Your task to perform on an android device: Add "energizer triple a" to the cart on amazon Image 0: 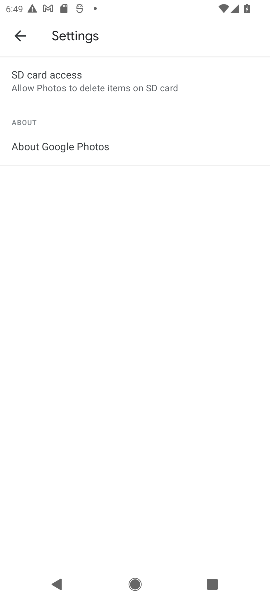
Step 0: press home button
Your task to perform on an android device: Add "energizer triple a" to the cart on amazon Image 1: 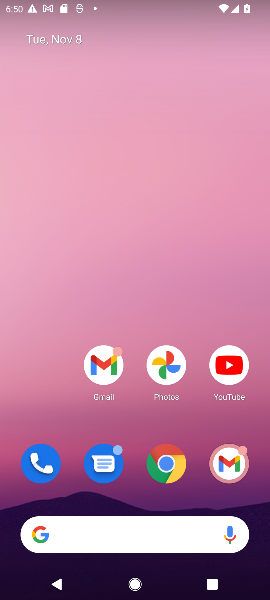
Step 1: click (167, 458)
Your task to perform on an android device: Add "energizer triple a" to the cart on amazon Image 2: 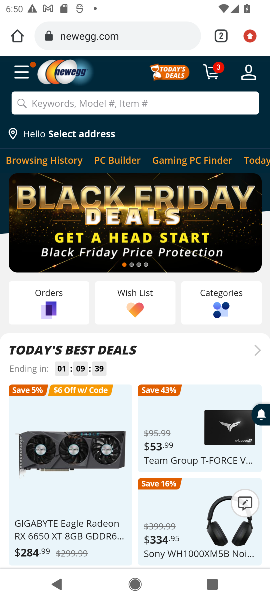
Step 2: click (85, 24)
Your task to perform on an android device: Add "energizer triple a" to the cart on amazon Image 3: 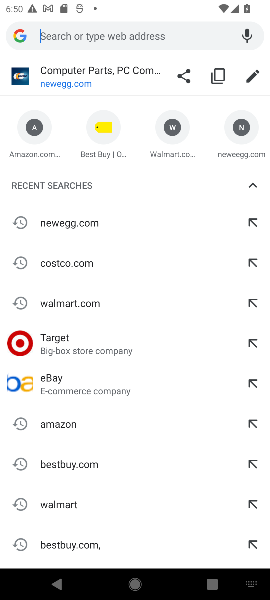
Step 3: click (25, 422)
Your task to perform on an android device: Add "energizer triple a" to the cart on amazon Image 4: 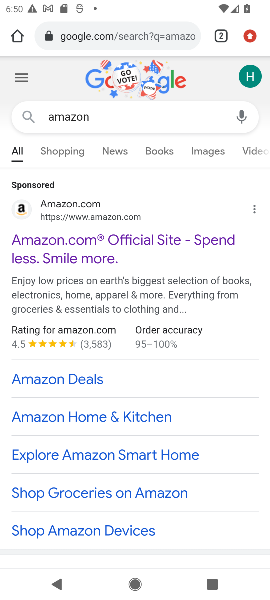
Step 4: click (87, 265)
Your task to perform on an android device: Add "energizer triple a" to the cart on amazon Image 5: 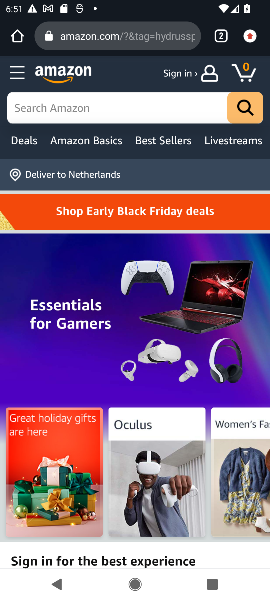
Step 5: click (94, 108)
Your task to perform on an android device: Add "energizer triple a" to the cart on amazon Image 6: 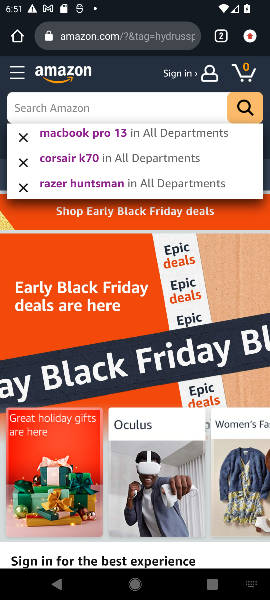
Step 6: click (106, 40)
Your task to perform on an android device: Add "energizer triple a" to the cart on amazon Image 7: 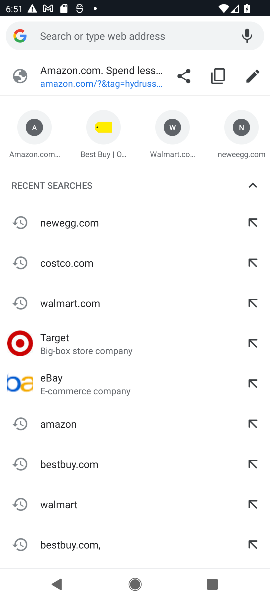
Step 7: type "energizer triple a"
Your task to perform on an android device: Add "energizer triple a" to the cart on amazon Image 8: 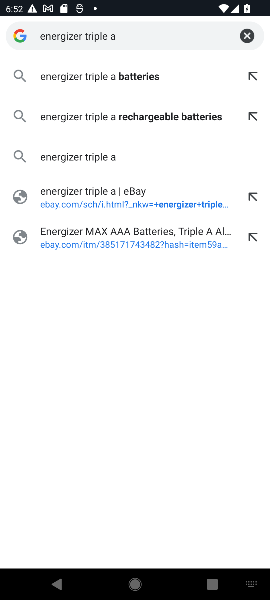
Step 8: press back button
Your task to perform on an android device: Add "energizer triple a" to the cart on amazon Image 9: 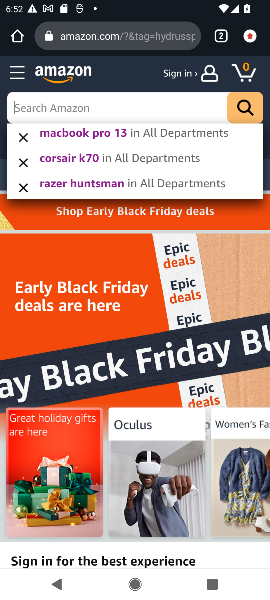
Step 9: type "energizer triple a"
Your task to perform on an android device: Add "energizer triple a" to the cart on amazon Image 10: 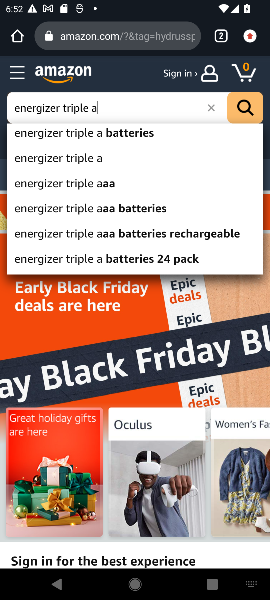
Step 10: click (246, 107)
Your task to perform on an android device: Add "energizer triple a" to the cart on amazon Image 11: 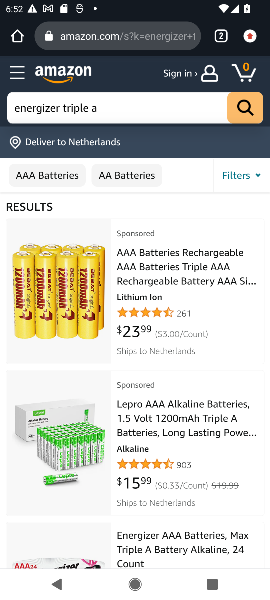
Step 11: click (146, 545)
Your task to perform on an android device: Add "energizer triple a" to the cart on amazon Image 12: 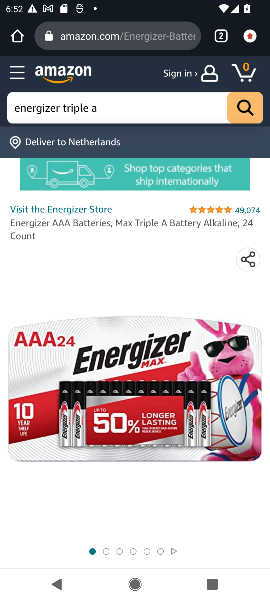
Step 12: drag from (88, 490) to (98, 123)
Your task to perform on an android device: Add "energizer triple a" to the cart on amazon Image 13: 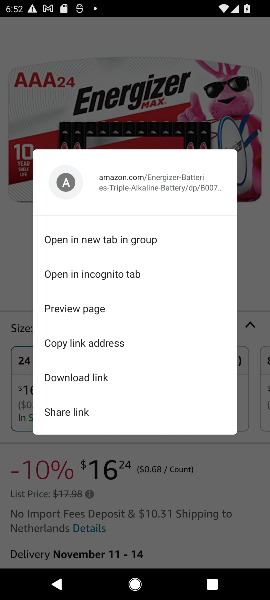
Step 13: click (197, 473)
Your task to perform on an android device: Add "energizer triple a" to the cart on amazon Image 14: 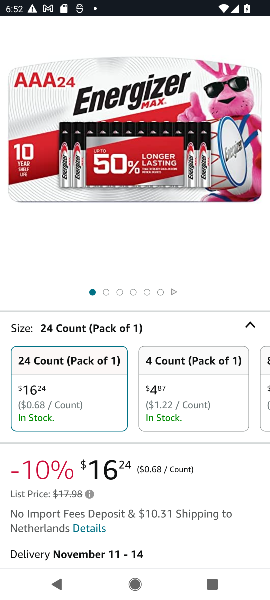
Step 14: drag from (197, 473) to (227, 104)
Your task to perform on an android device: Add "energizer triple a" to the cart on amazon Image 15: 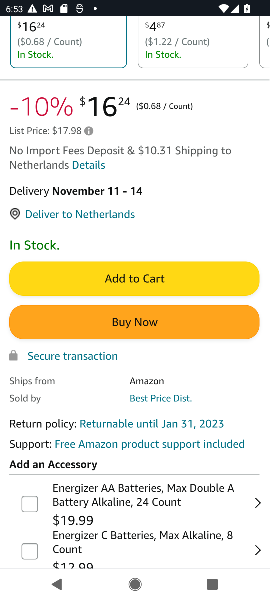
Step 15: drag from (114, 482) to (125, 223)
Your task to perform on an android device: Add "energizer triple a" to the cart on amazon Image 16: 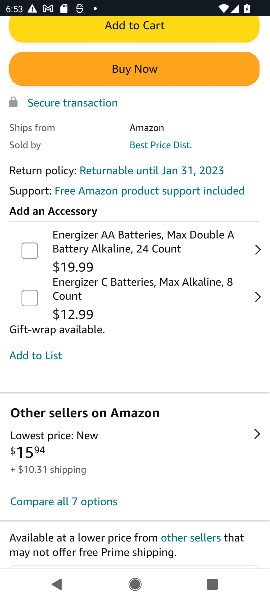
Step 16: drag from (207, 326) to (188, 202)
Your task to perform on an android device: Add "energizer triple a" to the cart on amazon Image 17: 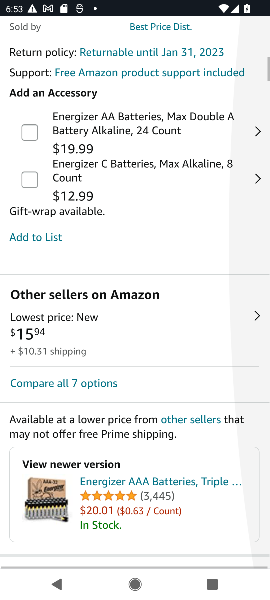
Step 17: click (140, 274)
Your task to perform on an android device: Add "energizer triple a" to the cart on amazon Image 18: 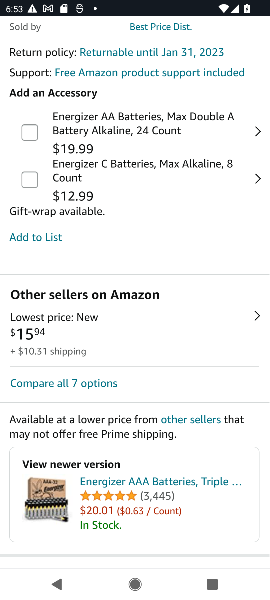
Step 18: click (137, 68)
Your task to perform on an android device: Add "energizer triple a" to the cart on amazon Image 19: 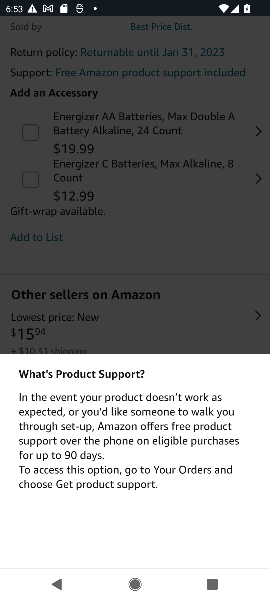
Step 19: click (136, 254)
Your task to perform on an android device: Add "energizer triple a" to the cart on amazon Image 20: 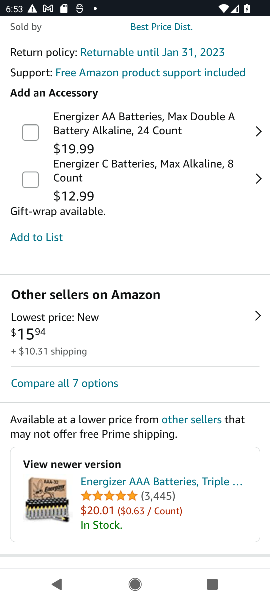
Step 20: drag from (168, 203) to (156, 335)
Your task to perform on an android device: Add "energizer triple a" to the cart on amazon Image 21: 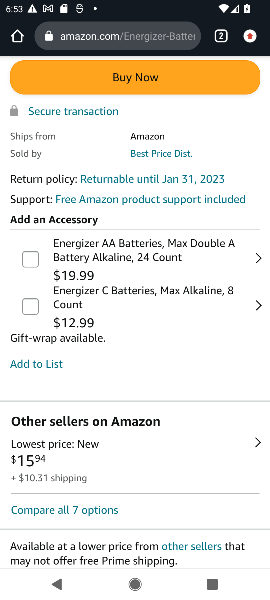
Step 21: drag from (182, 112) to (171, 332)
Your task to perform on an android device: Add "energizer triple a" to the cart on amazon Image 22: 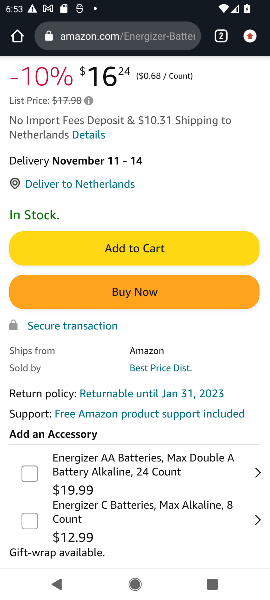
Step 22: click (128, 255)
Your task to perform on an android device: Add "energizer triple a" to the cart on amazon Image 23: 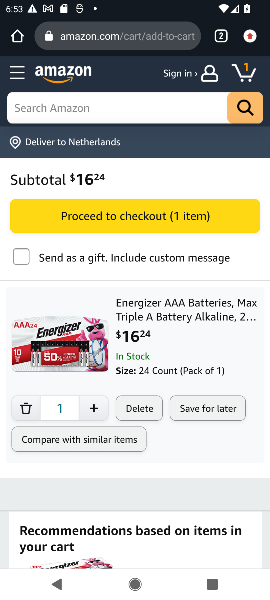
Step 23: task complete